Your task to perform on an android device: turn on notifications settings in the gmail app Image 0: 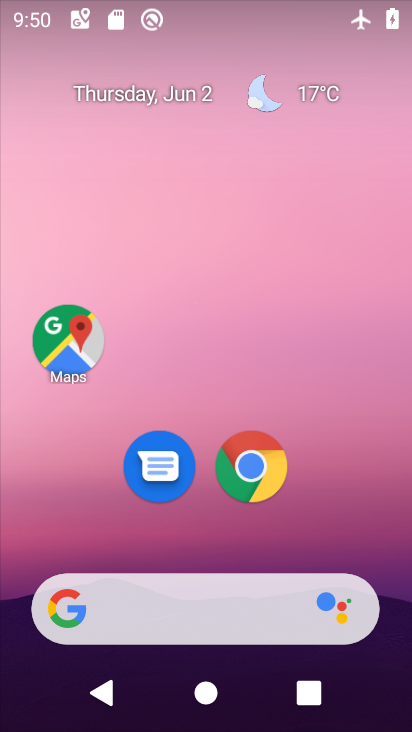
Step 0: drag from (282, 448) to (287, 142)
Your task to perform on an android device: turn on notifications settings in the gmail app Image 1: 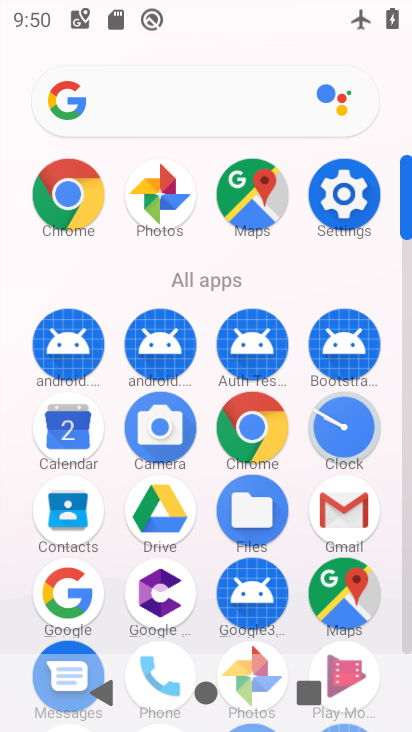
Step 1: click (343, 512)
Your task to perform on an android device: turn on notifications settings in the gmail app Image 2: 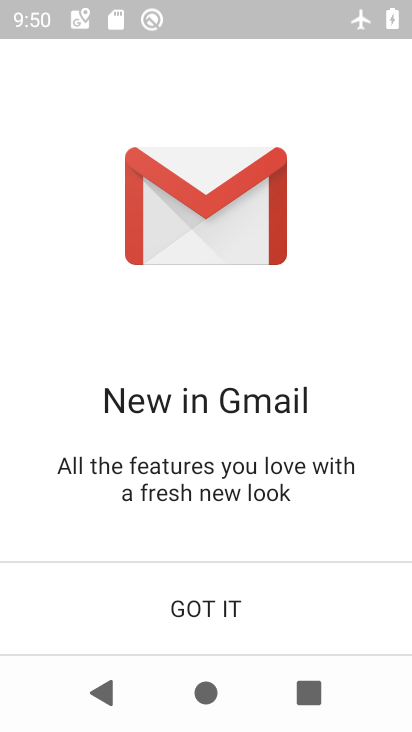
Step 2: click (194, 600)
Your task to perform on an android device: turn on notifications settings in the gmail app Image 3: 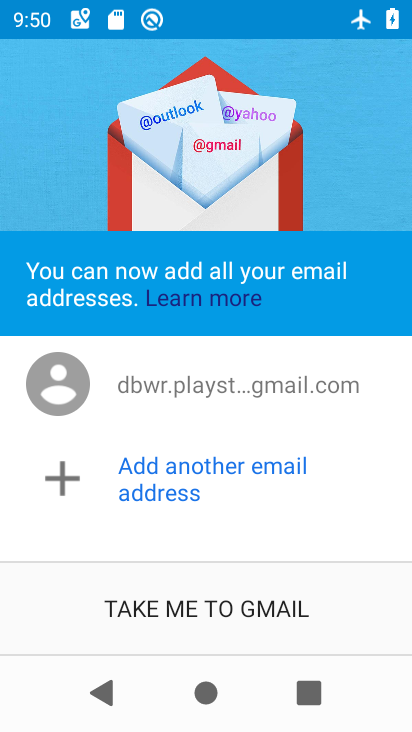
Step 3: click (240, 598)
Your task to perform on an android device: turn on notifications settings in the gmail app Image 4: 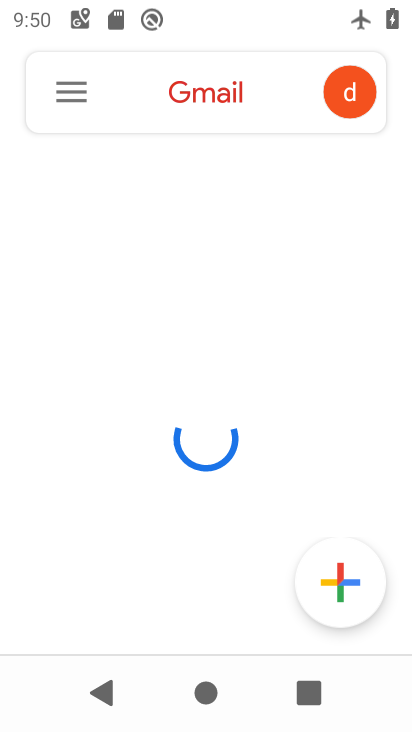
Step 4: click (54, 80)
Your task to perform on an android device: turn on notifications settings in the gmail app Image 5: 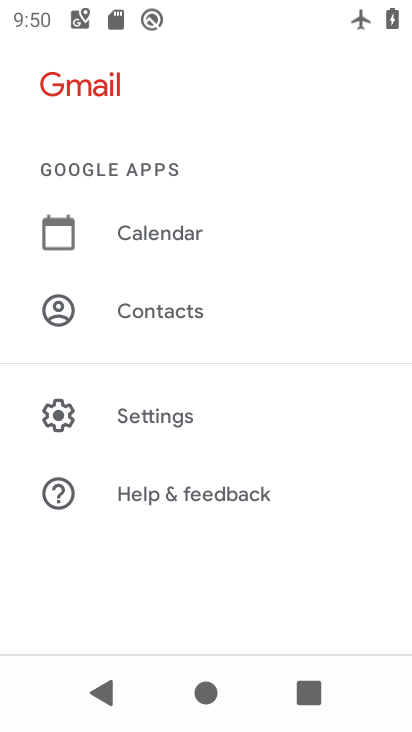
Step 5: click (211, 418)
Your task to perform on an android device: turn on notifications settings in the gmail app Image 6: 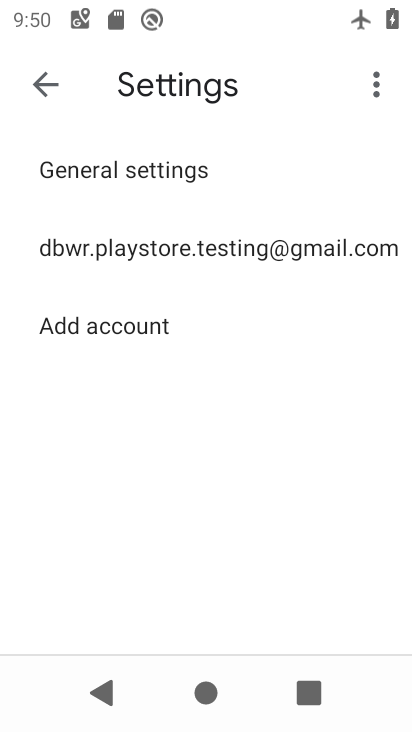
Step 6: click (142, 243)
Your task to perform on an android device: turn on notifications settings in the gmail app Image 7: 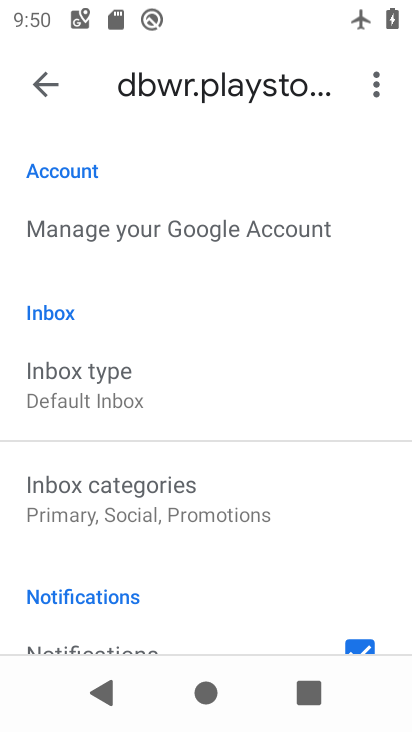
Step 7: task complete